Your task to perform on an android device: Open Maps and search for coffee Image 0: 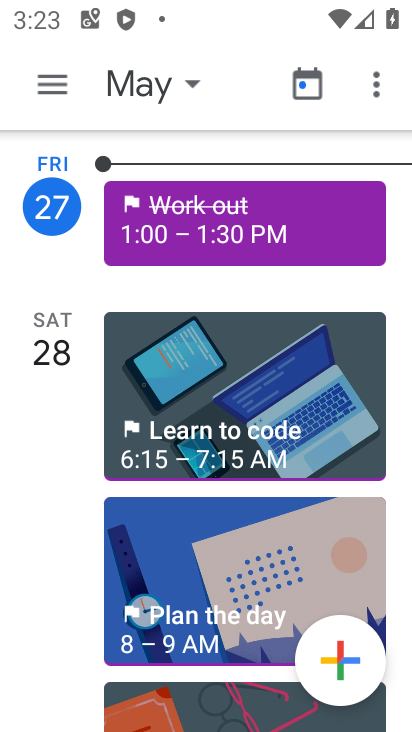
Step 0: press home button
Your task to perform on an android device: Open Maps and search for coffee Image 1: 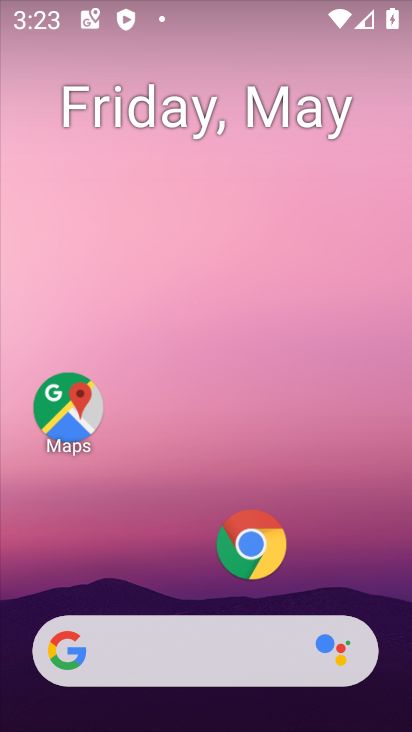
Step 1: click (85, 408)
Your task to perform on an android device: Open Maps and search for coffee Image 2: 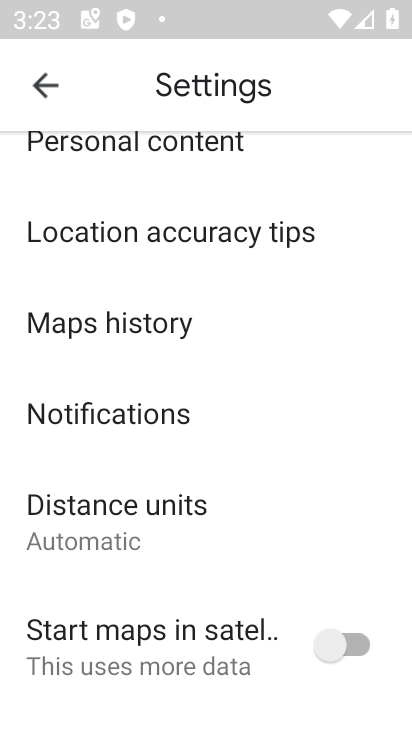
Step 2: click (51, 86)
Your task to perform on an android device: Open Maps and search for coffee Image 3: 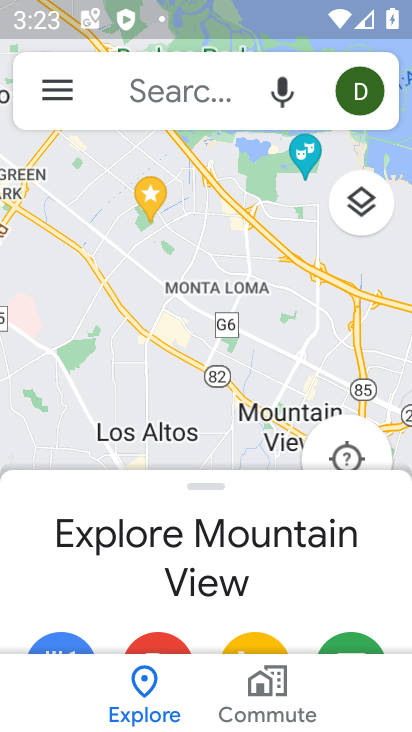
Step 3: task complete